Your task to perform on an android device: change the upload size in google photos Image 0: 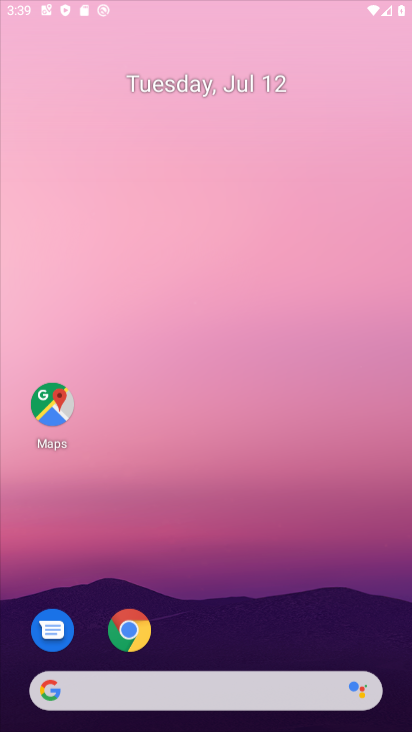
Step 0: press back button
Your task to perform on an android device: change the upload size in google photos Image 1: 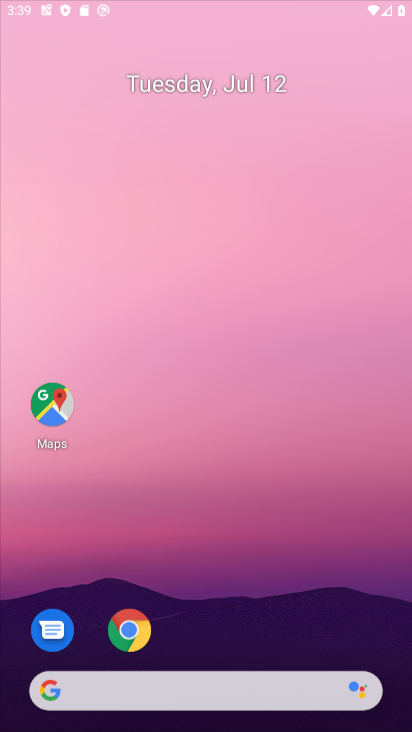
Step 1: press home button
Your task to perform on an android device: change the upload size in google photos Image 2: 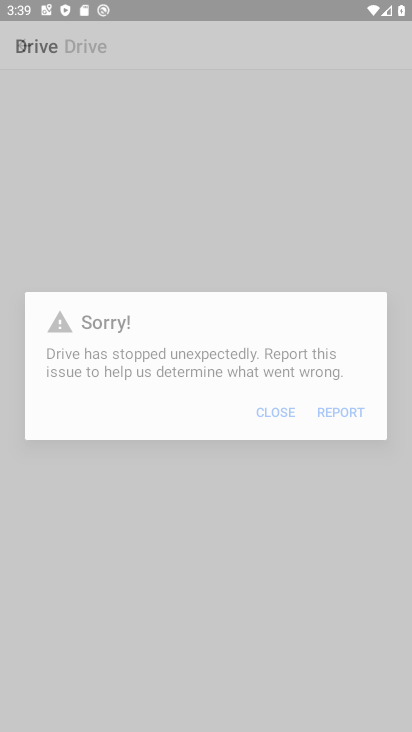
Step 2: click (233, 73)
Your task to perform on an android device: change the upload size in google photos Image 3: 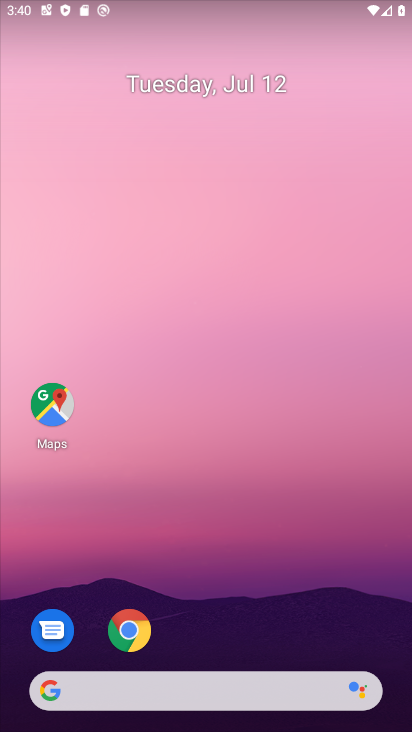
Step 3: drag from (190, 432) to (173, 137)
Your task to perform on an android device: change the upload size in google photos Image 4: 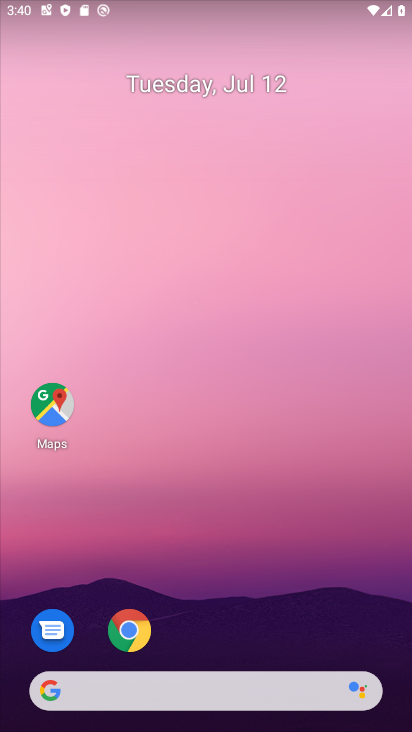
Step 4: drag from (246, 691) to (222, 186)
Your task to perform on an android device: change the upload size in google photos Image 5: 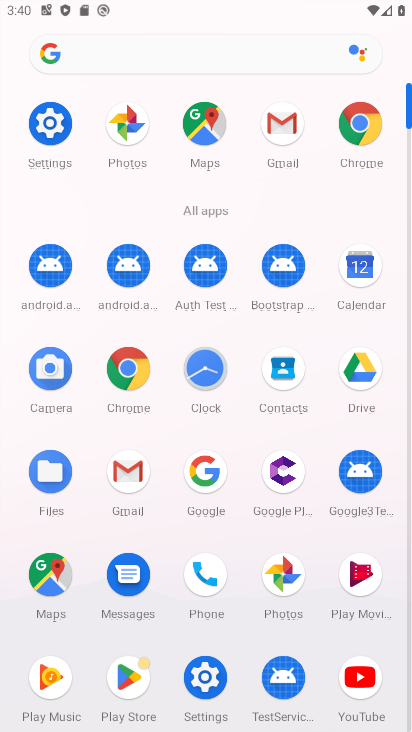
Step 5: drag from (168, 580) to (220, 23)
Your task to perform on an android device: change the upload size in google photos Image 6: 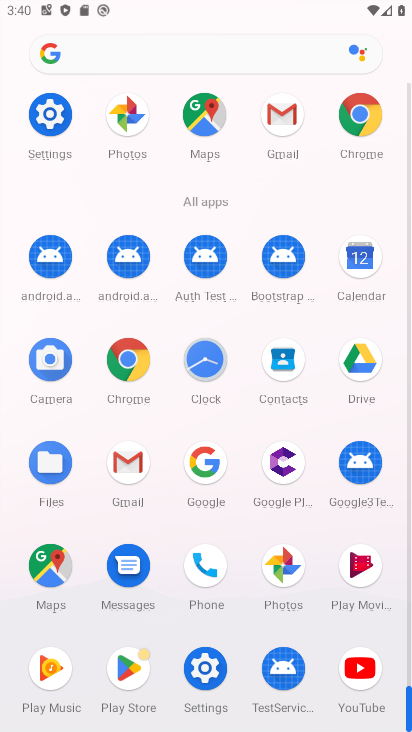
Step 6: drag from (288, 469) to (203, 32)
Your task to perform on an android device: change the upload size in google photos Image 7: 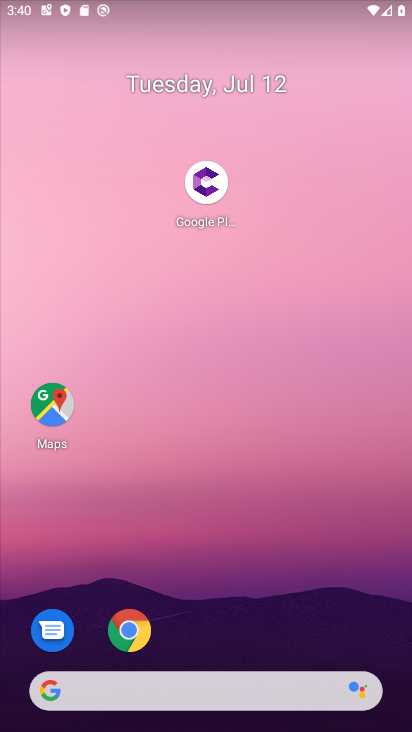
Step 7: drag from (257, 344) to (264, 11)
Your task to perform on an android device: change the upload size in google photos Image 8: 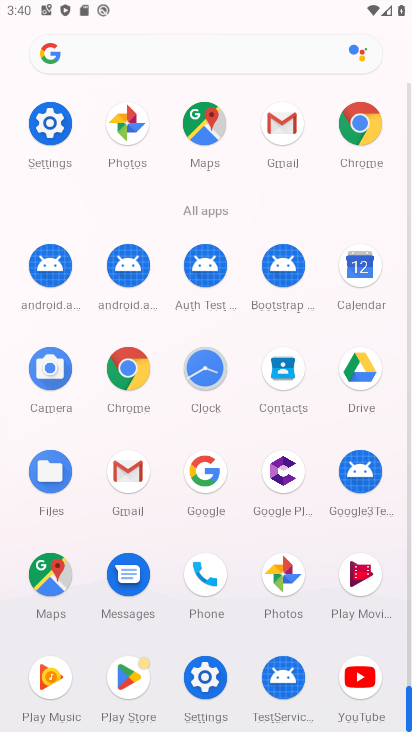
Step 8: drag from (267, 566) to (190, 24)
Your task to perform on an android device: change the upload size in google photos Image 9: 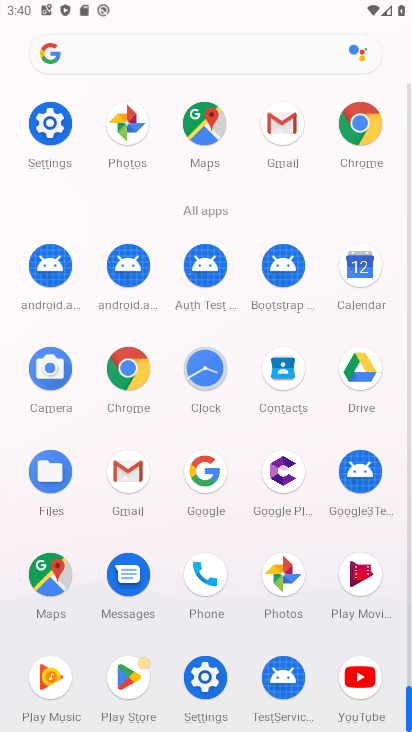
Step 9: click (185, 204)
Your task to perform on an android device: change the upload size in google photos Image 10: 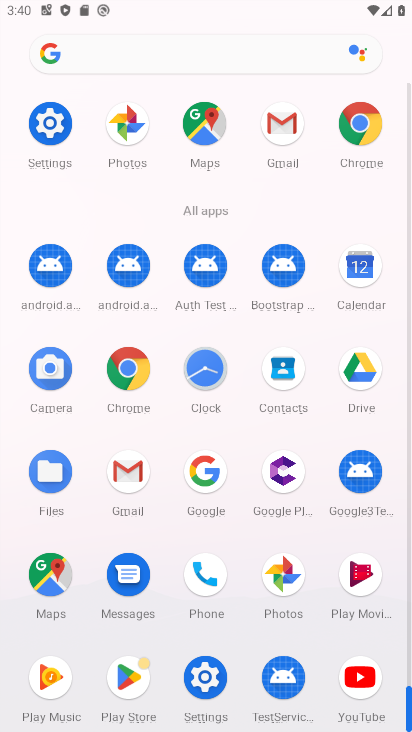
Step 10: click (281, 585)
Your task to perform on an android device: change the upload size in google photos Image 11: 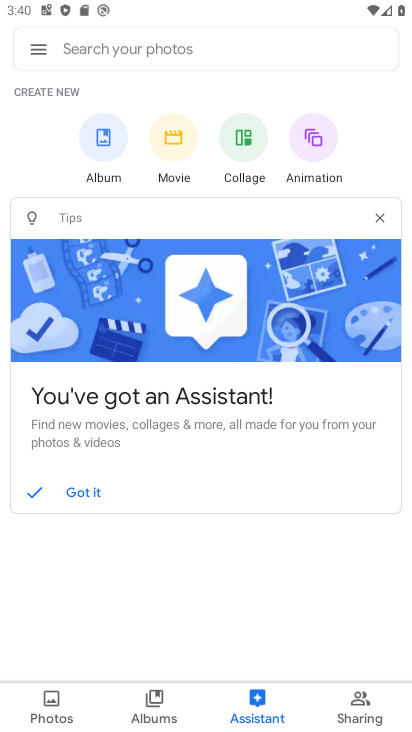
Step 11: click (39, 38)
Your task to perform on an android device: change the upload size in google photos Image 12: 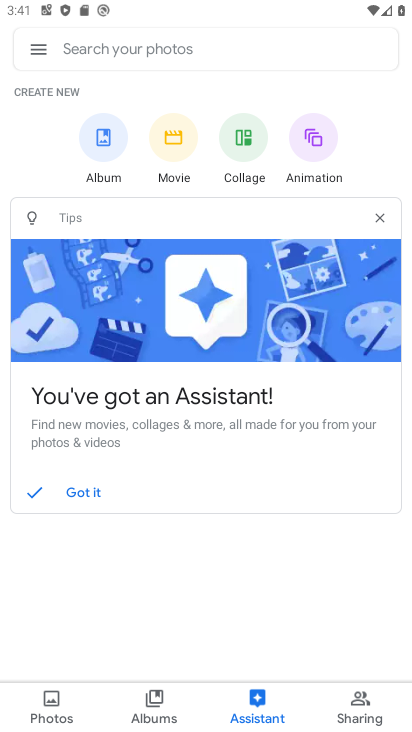
Step 12: drag from (44, 41) to (86, 252)
Your task to perform on an android device: change the upload size in google photos Image 13: 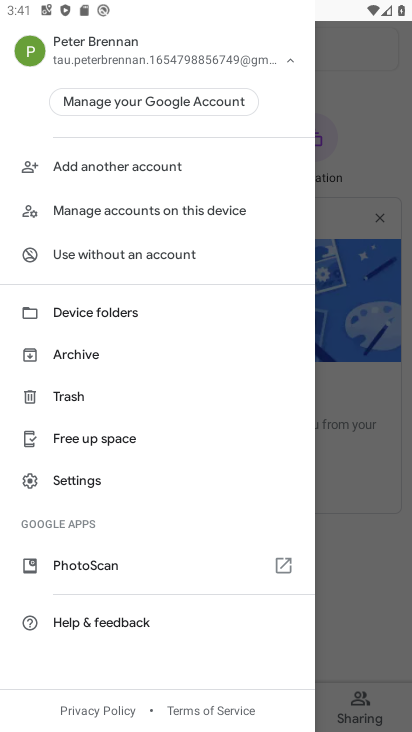
Step 13: click (38, 53)
Your task to perform on an android device: change the upload size in google photos Image 14: 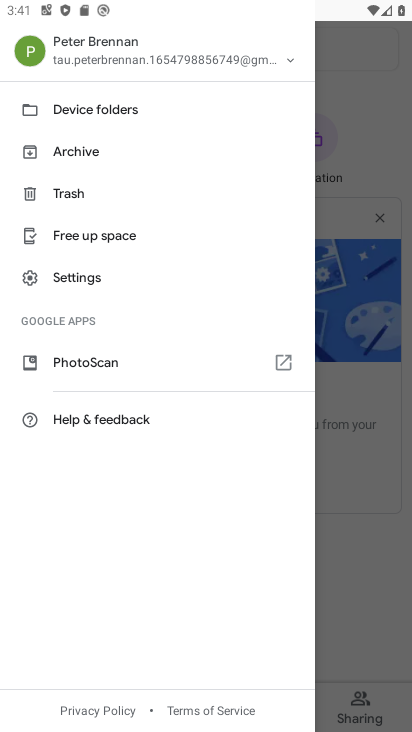
Step 14: click (73, 270)
Your task to perform on an android device: change the upload size in google photos Image 15: 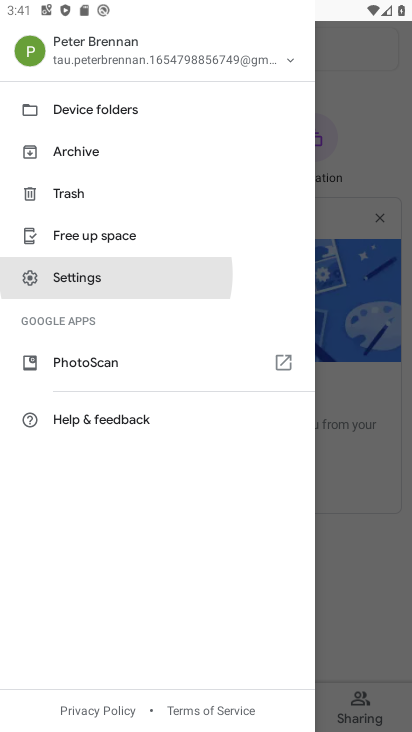
Step 15: click (73, 270)
Your task to perform on an android device: change the upload size in google photos Image 16: 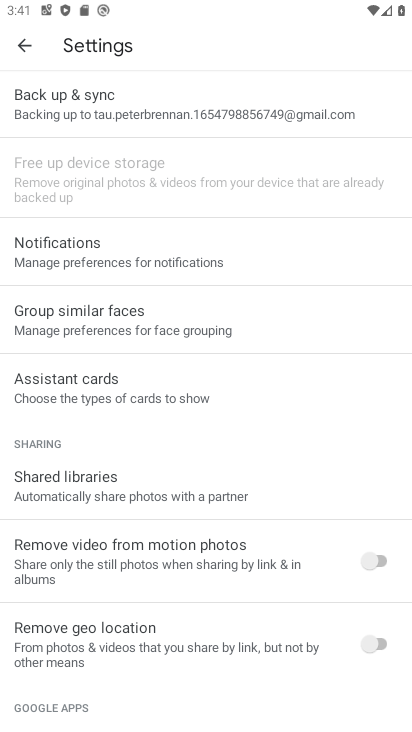
Step 16: click (52, 93)
Your task to perform on an android device: change the upload size in google photos Image 17: 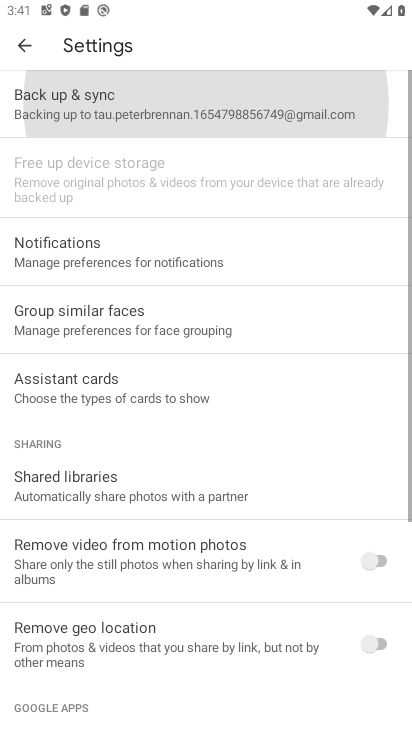
Step 17: click (52, 93)
Your task to perform on an android device: change the upload size in google photos Image 18: 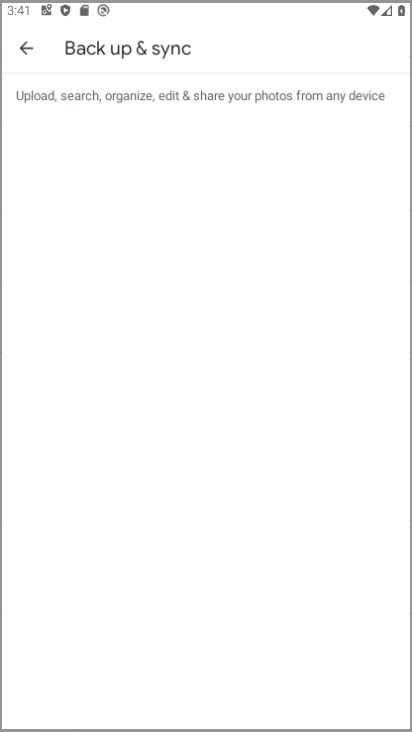
Step 18: click (52, 93)
Your task to perform on an android device: change the upload size in google photos Image 19: 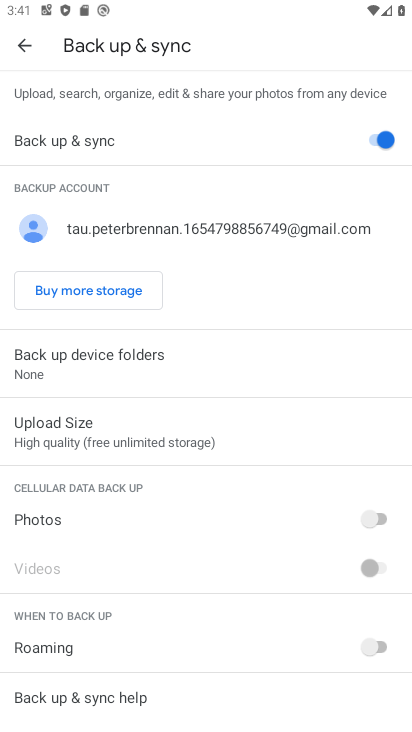
Step 19: click (68, 435)
Your task to perform on an android device: change the upload size in google photos Image 20: 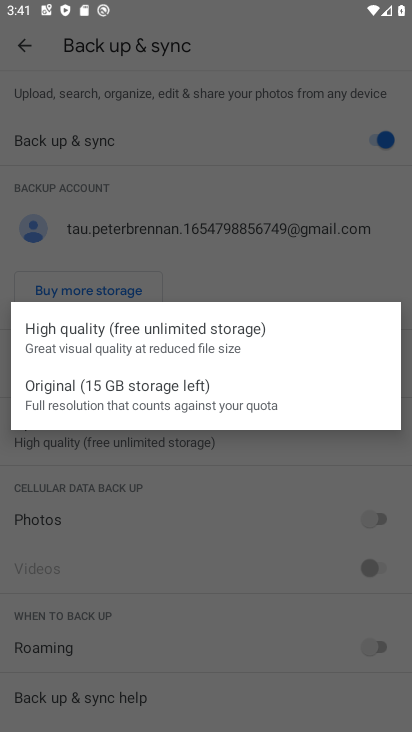
Step 20: click (51, 383)
Your task to perform on an android device: change the upload size in google photos Image 21: 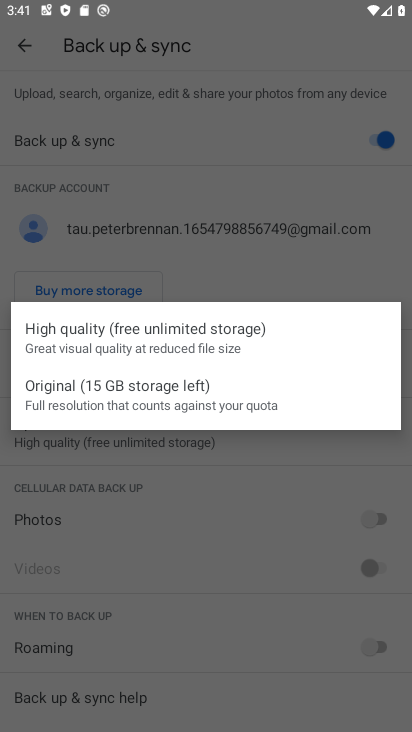
Step 21: click (51, 383)
Your task to perform on an android device: change the upload size in google photos Image 22: 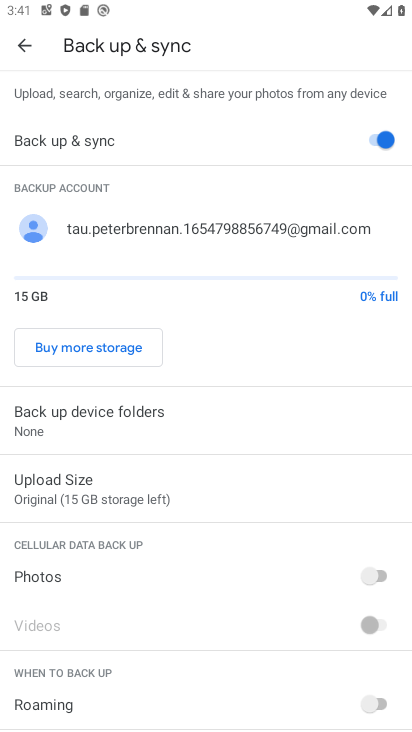
Step 22: task complete